Your task to perform on an android device: open app "The Home Depot" (install if not already installed), go to login, and select forgot password Image 0: 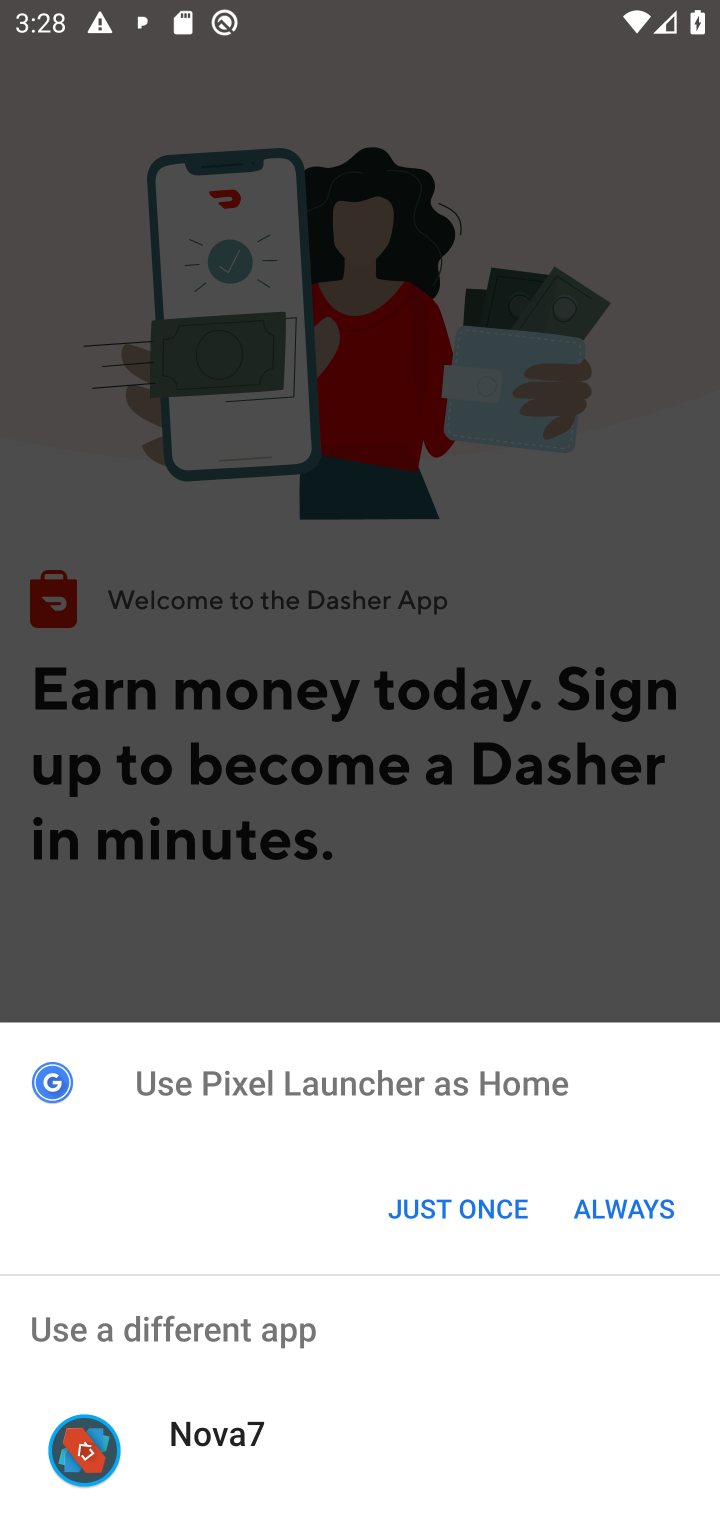
Step 0: click (471, 1227)
Your task to perform on an android device: open app "The Home Depot" (install if not already installed), go to login, and select forgot password Image 1: 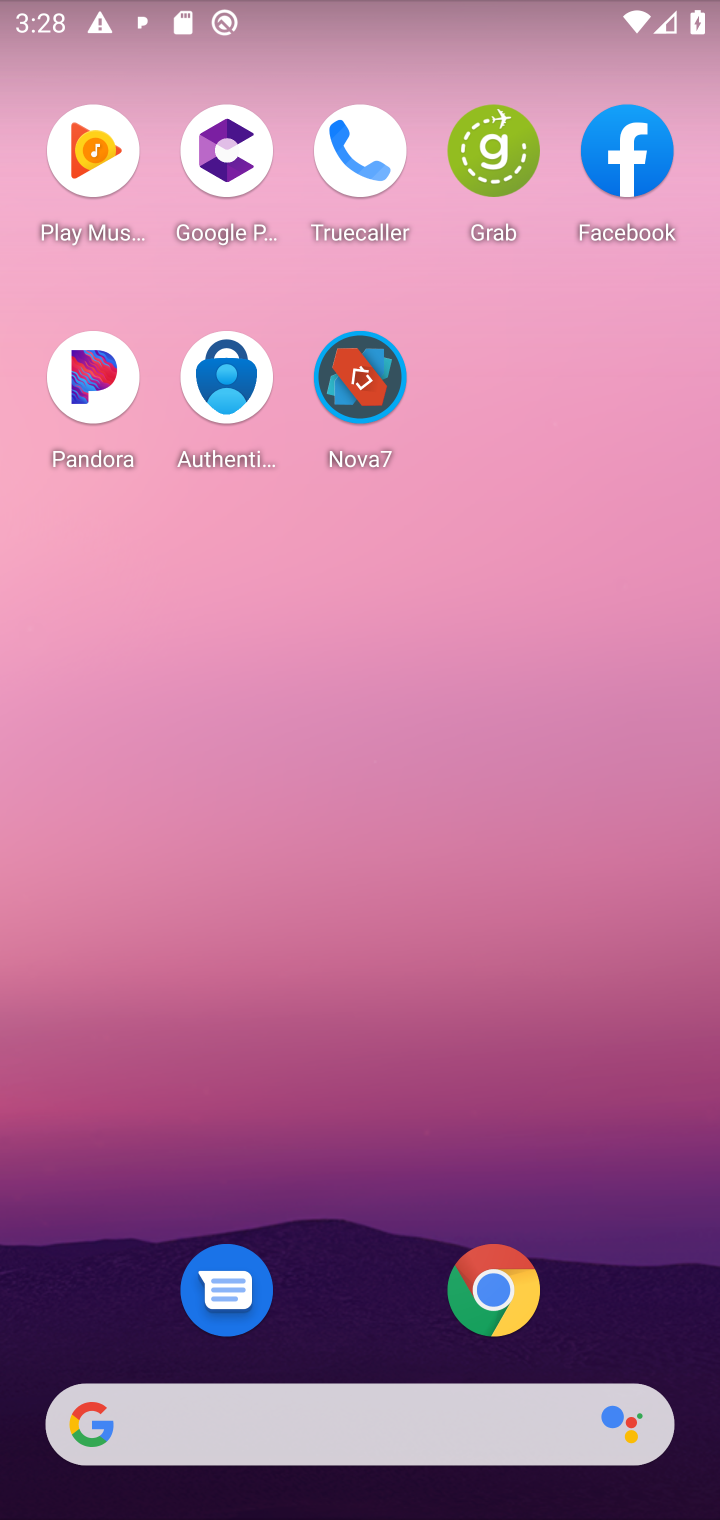
Step 1: drag from (376, 1379) to (698, 622)
Your task to perform on an android device: open app "The Home Depot" (install if not already installed), go to login, and select forgot password Image 2: 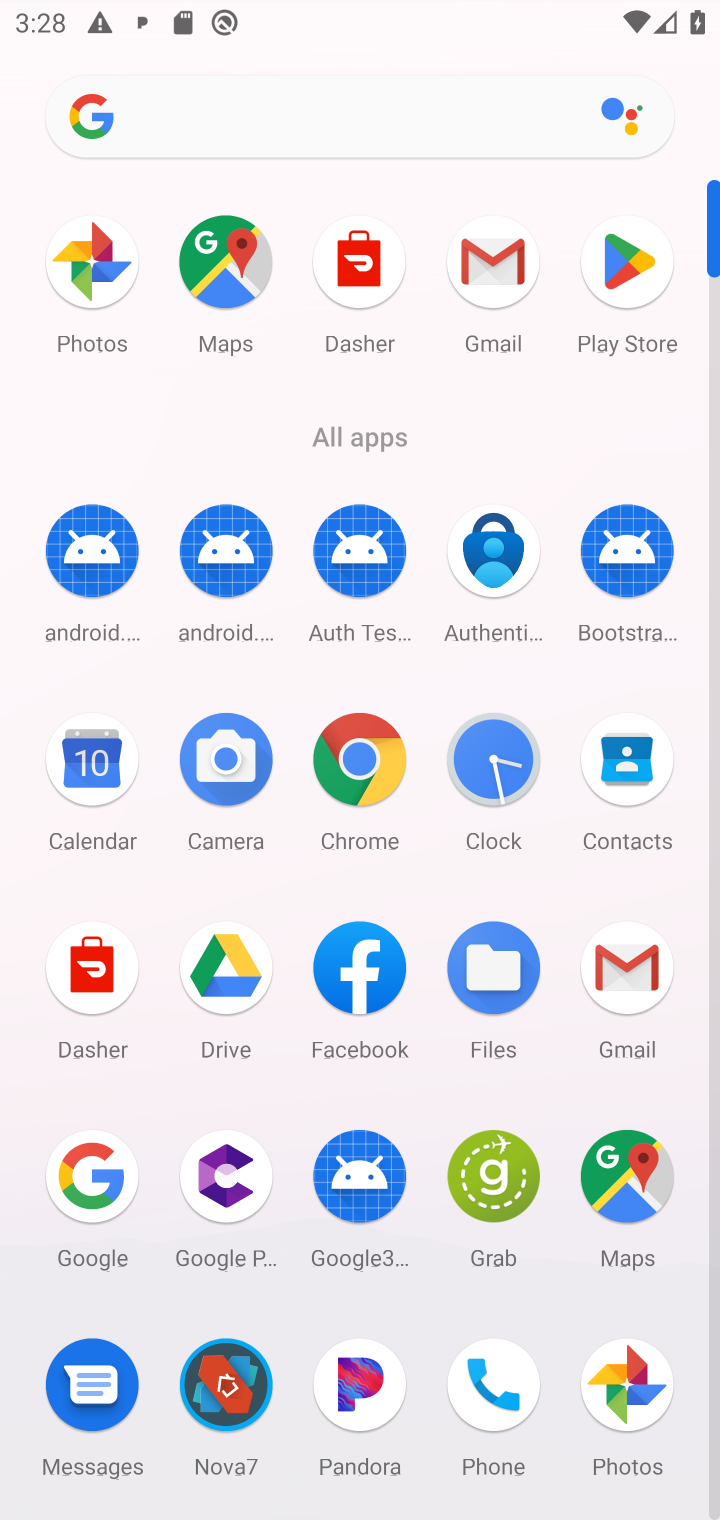
Step 2: click (644, 271)
Your task to perform on an android device: open app "The Home Depot" (install if not already installed), go to login, and select forgot password Image 3: 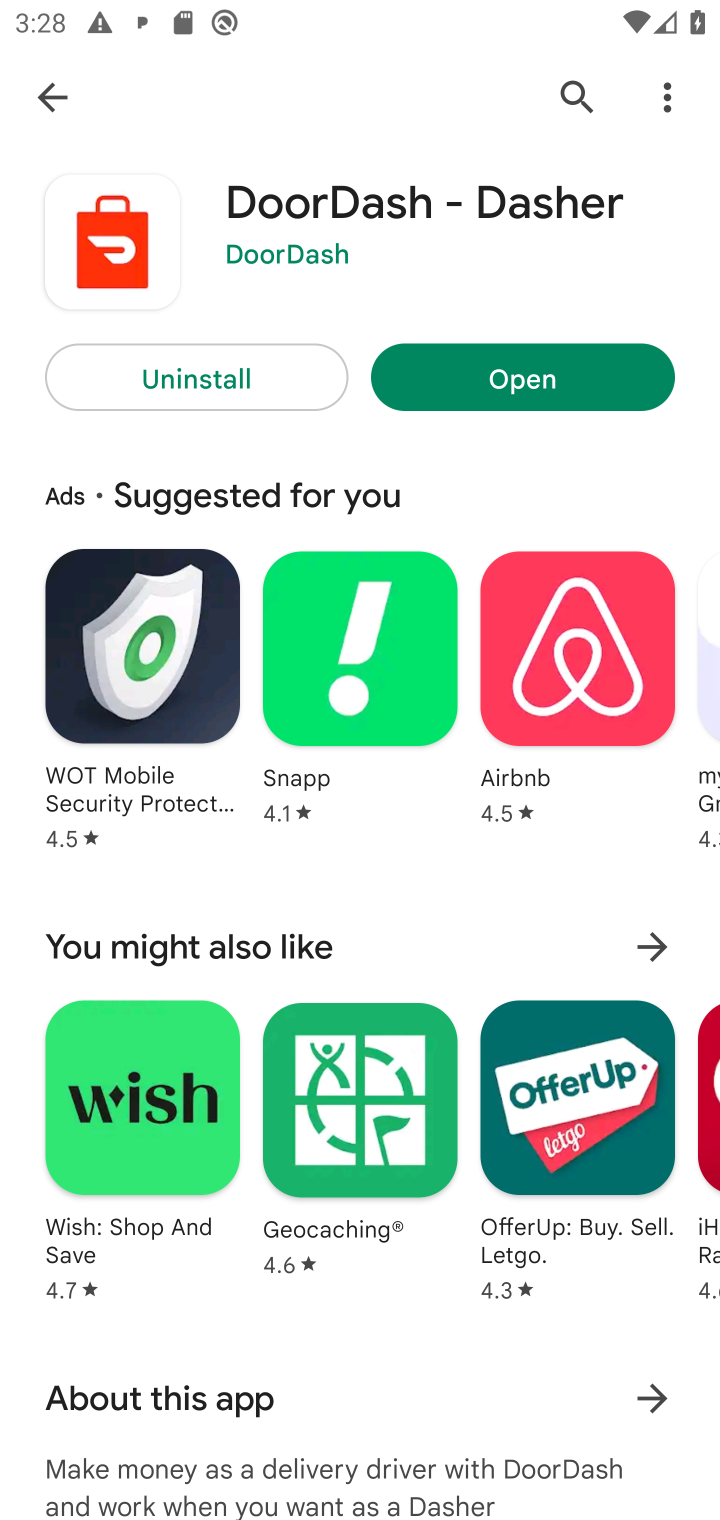
Step 3: click (30, 109)
Your task to perform on an android device: open app "The Home Depot" (install if not already installed), go to login, and select forgot password Image 4: 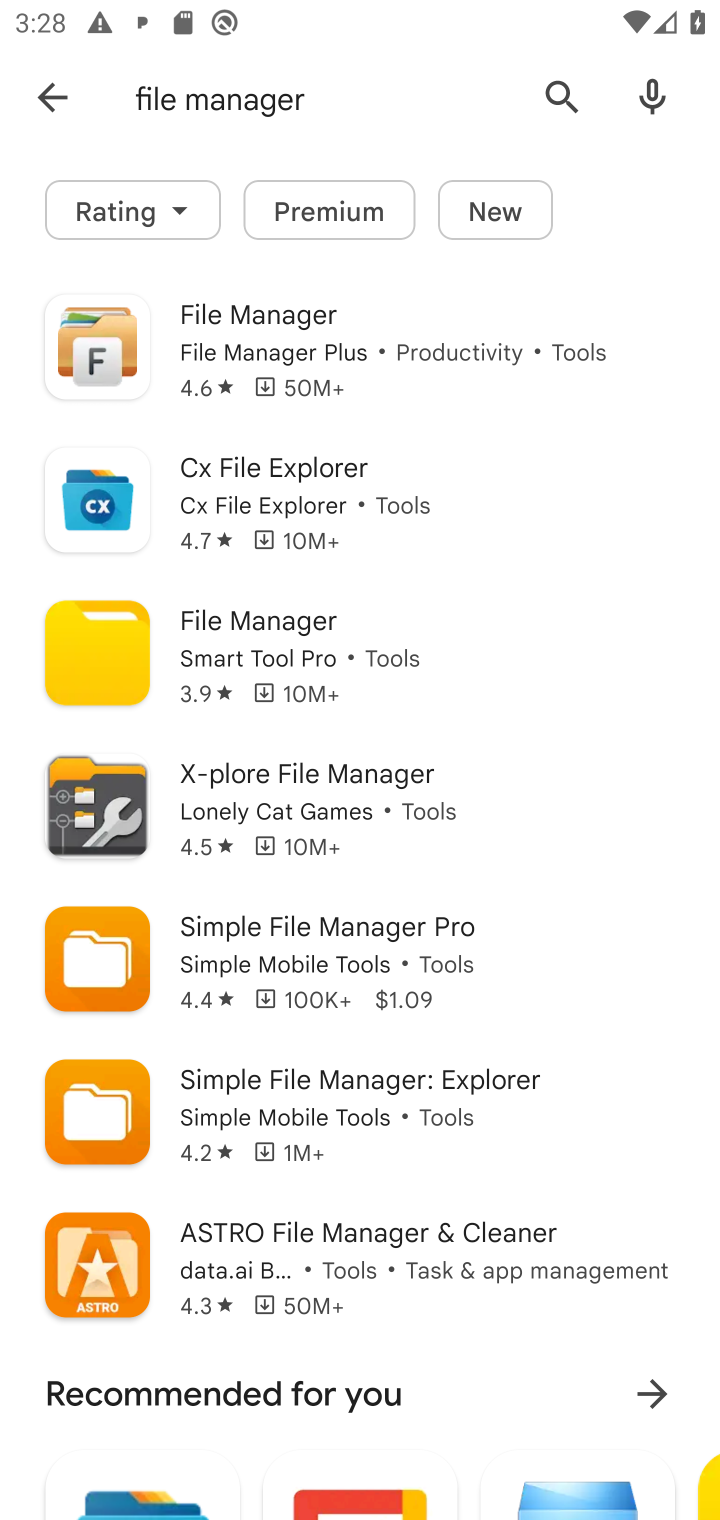
Step 4: click (563, 102)
Your task to perform on an android device: open app "The Home Depot" (install if not already installed), go to login, and select forgot password Image 5: 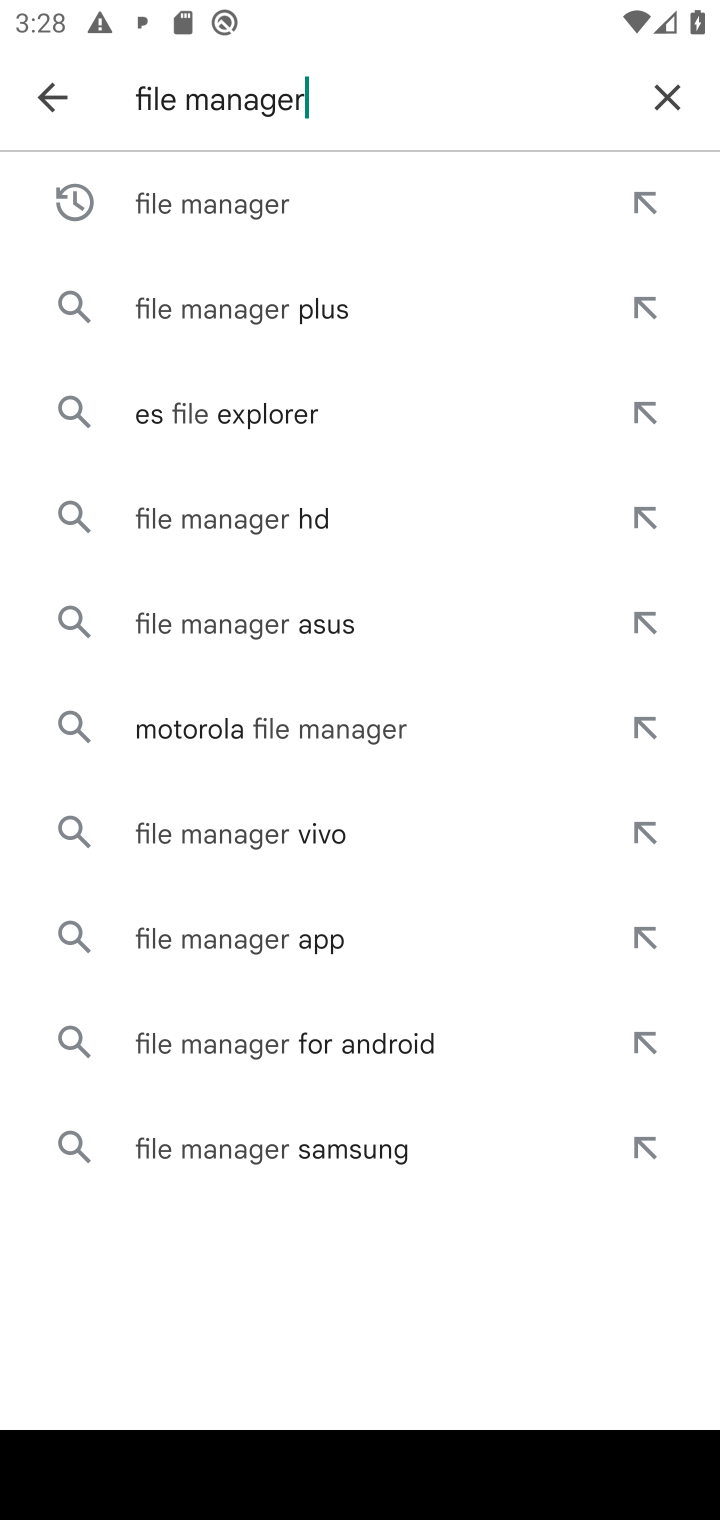
Step 5: click (670, 86)
Your task to perform on an android device: open app "The Home Depot" (install if not already installed), go to login, and select forgot password Image 6: 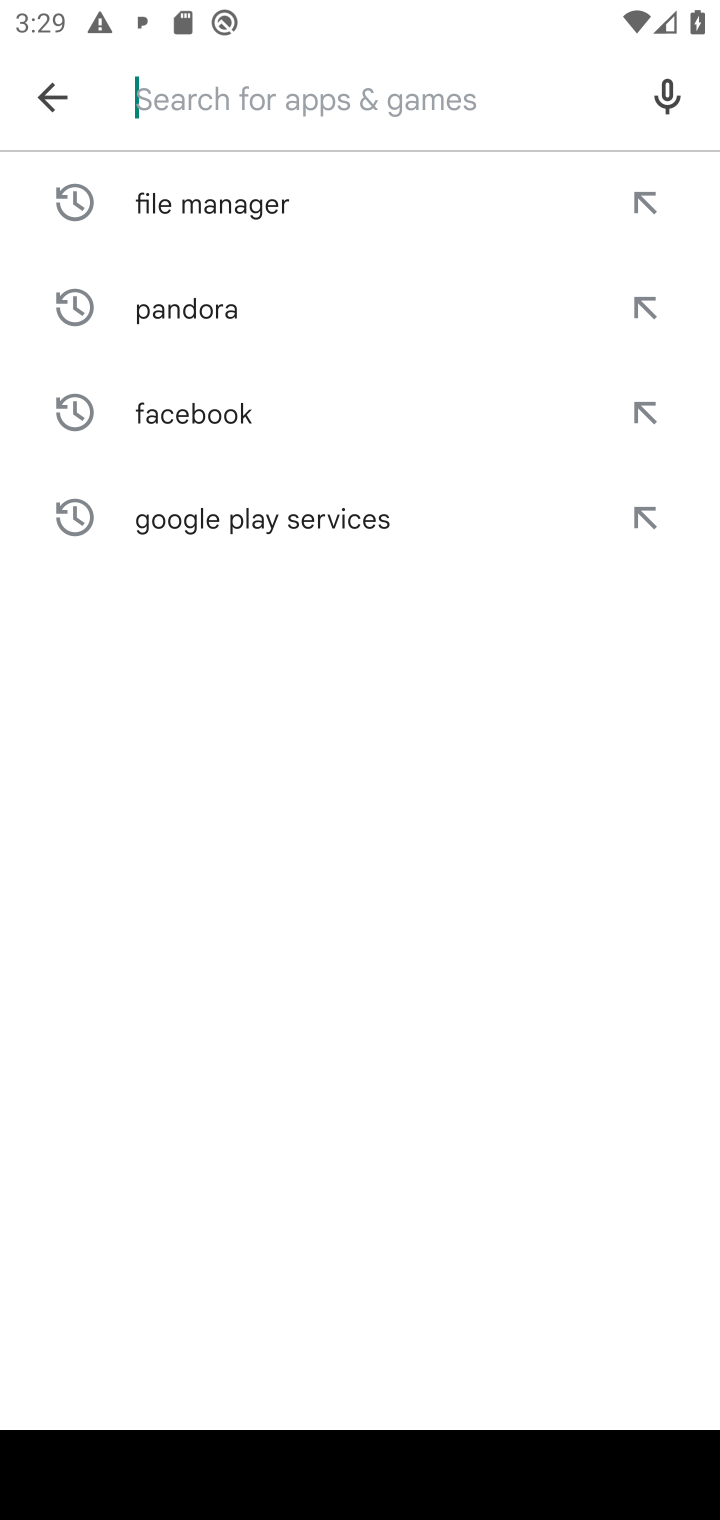
Step 6: type "The Home Depot"
Your task to perform on an android device: open app "The Home Depot" (install if not already installed), go to login, and select forgot password Image 7: 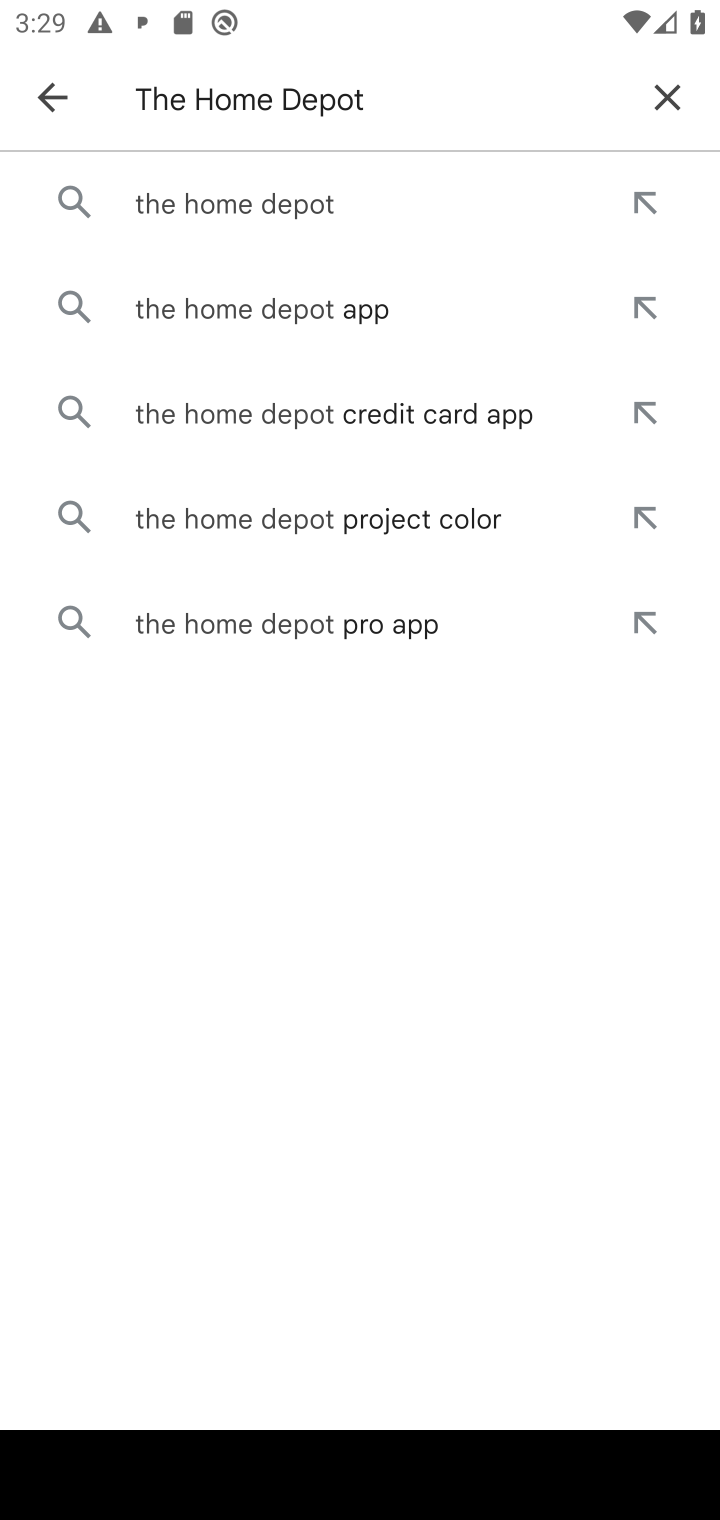
Step 7: click (205, 210)
Your task to perform on an android device: open app "The Home Depot" (install if not already installed), go to login, and select forgot password Image 8: 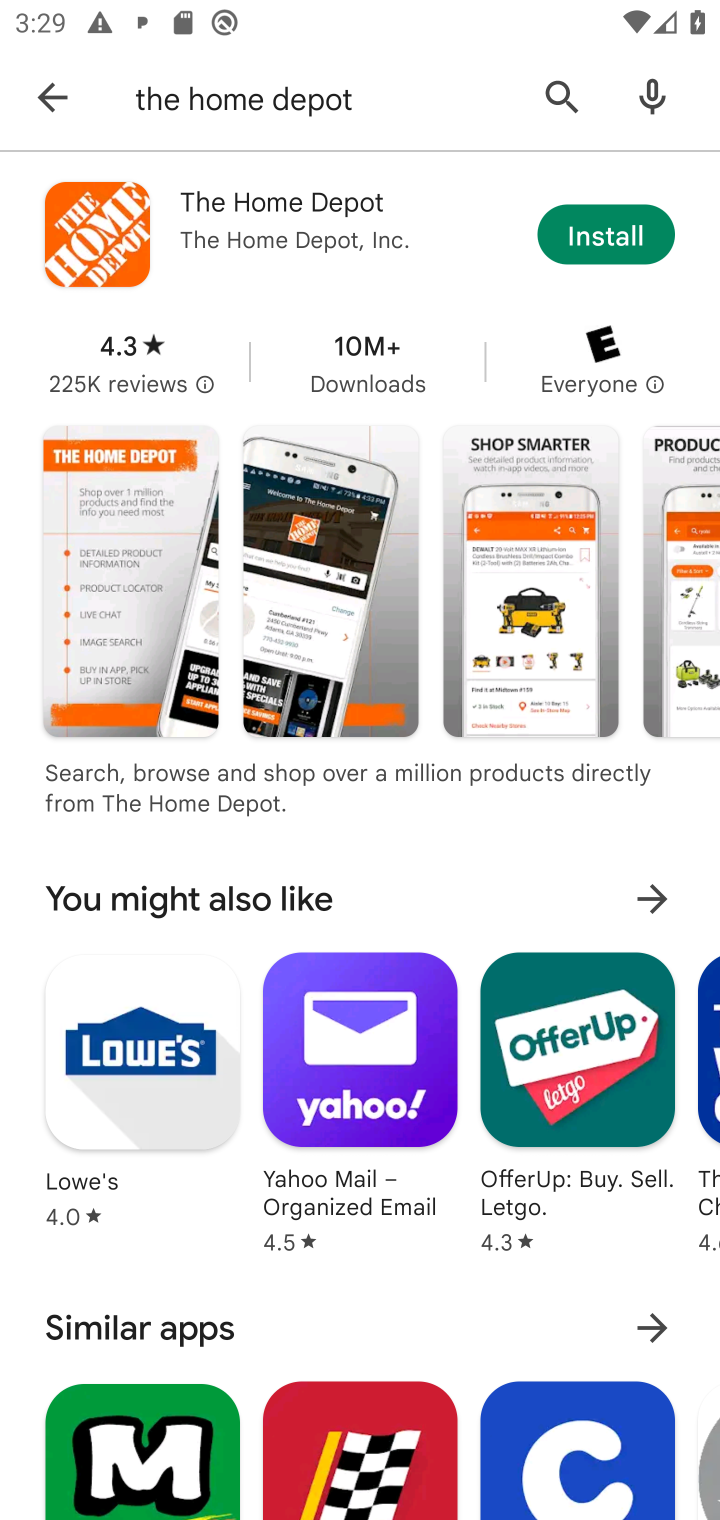
Step 8: click (587, 252)
Your task to perform on an android device: open app "The Home Depot" (install if not already installed), go to login, and select forgot password Image 9: 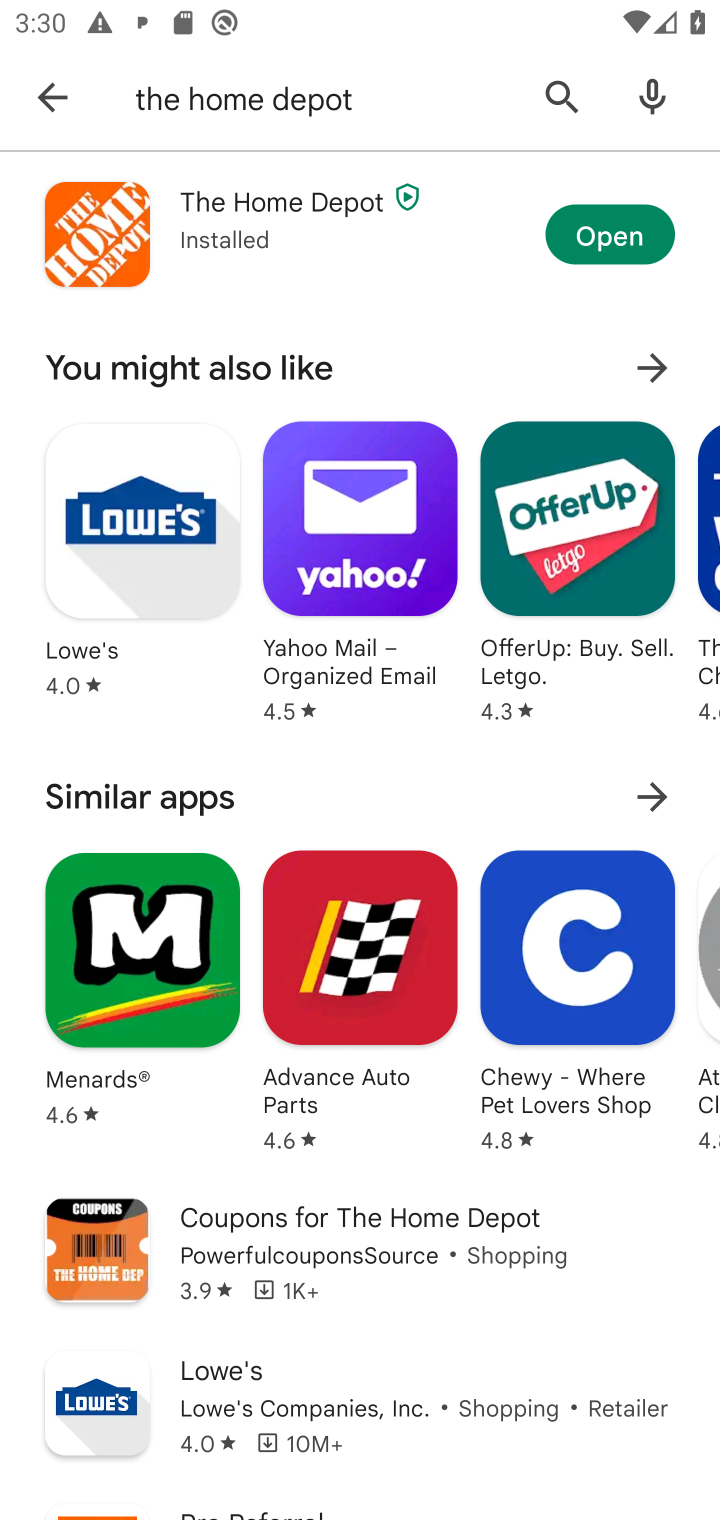
Step 9: drag from (428, 277) to (525, 970)
Your task to perform on an android device: open app "The Home Depot" (install if not already installed), go to login, and select forgot password Image 10: 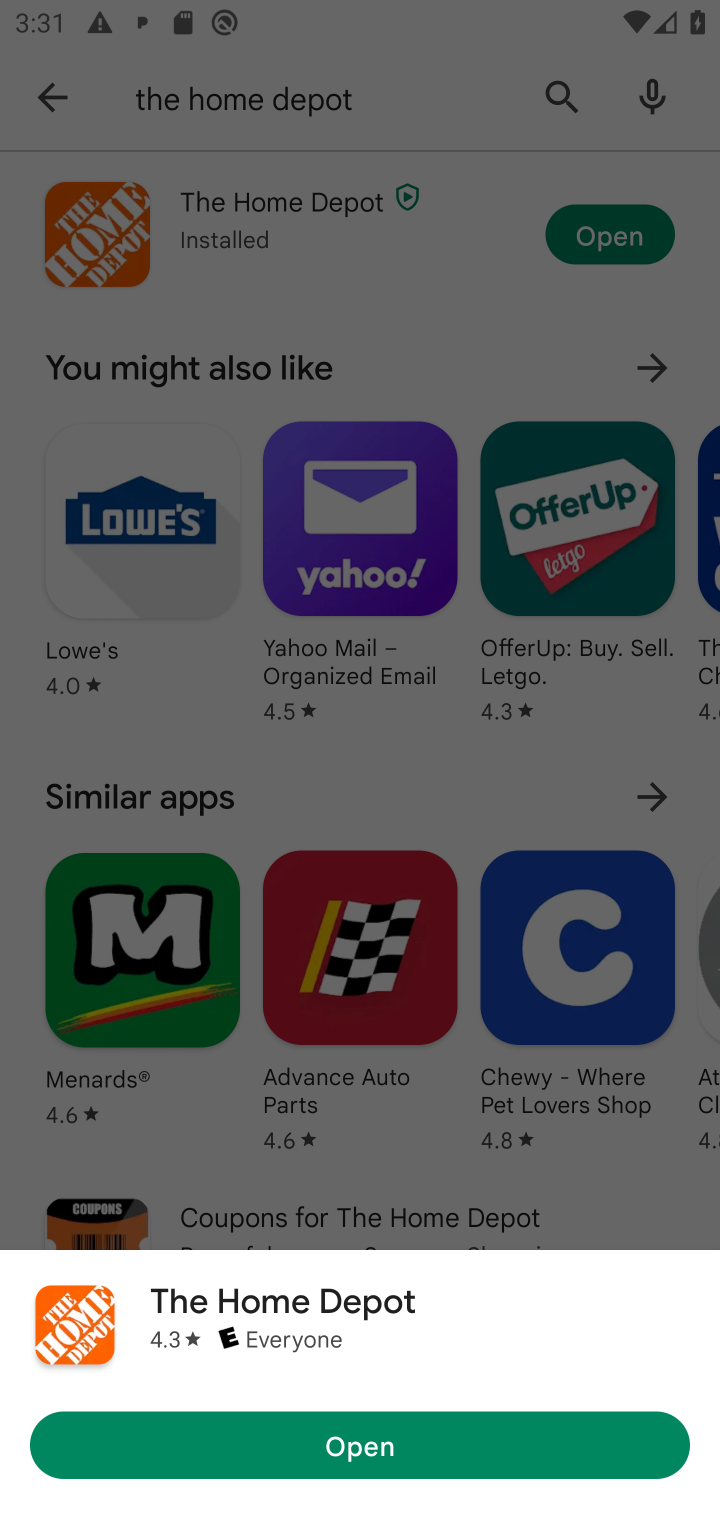
Step 10: click (379, 1431)
Your task to perform on an android device: open app "The Home Depot" (install if not already installed), go to login, and select forgot password Image 11: 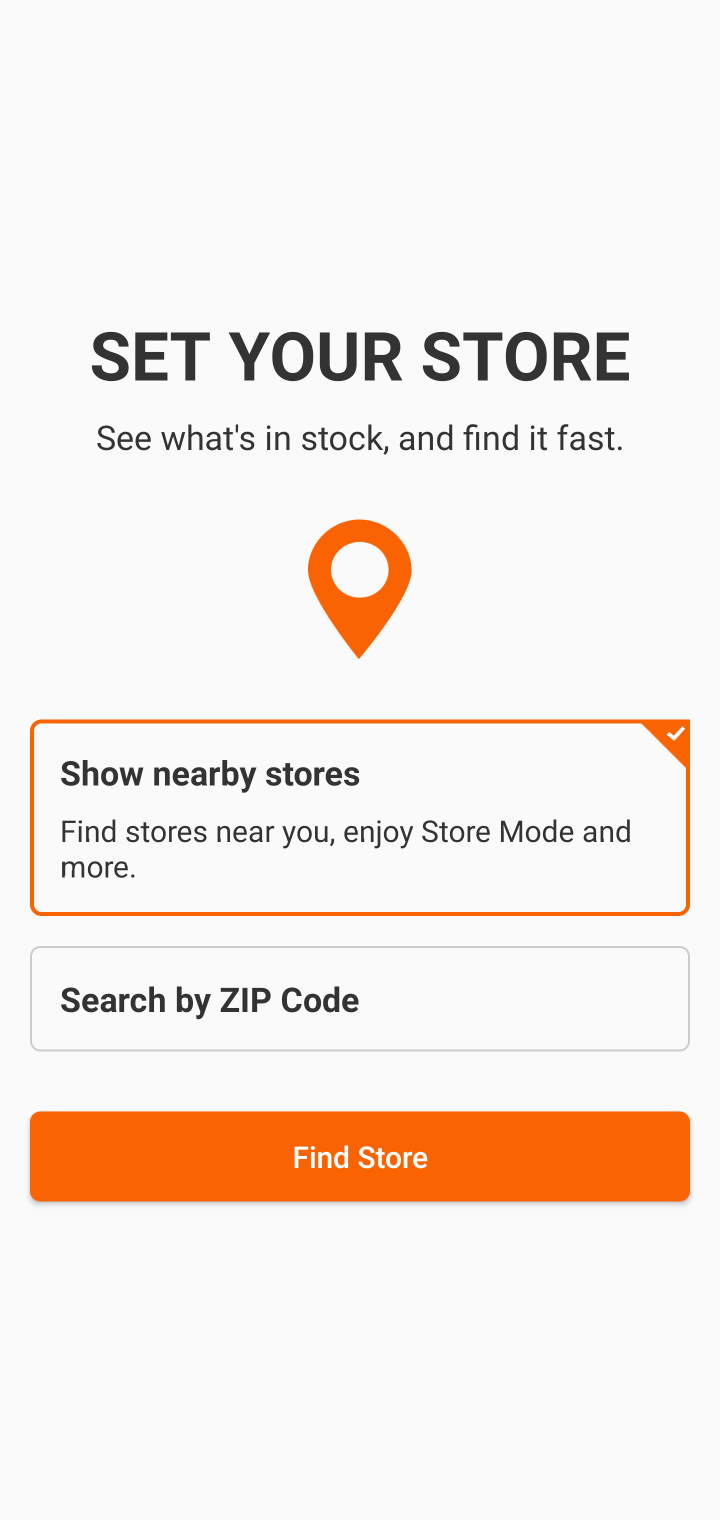
Step 11: task complete